Your task to perform on an android device: Open the calendar app, open the side menu, and click the "Day" option Image 0: 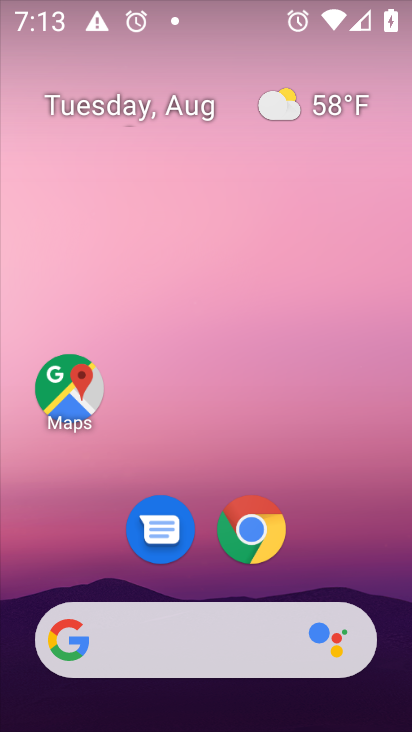
Step 0: drag from (203, 577) to (201, 1)
Your task to perform on an android device: Open the calendar app, open the side menu, and click the "Day" option Image 1: 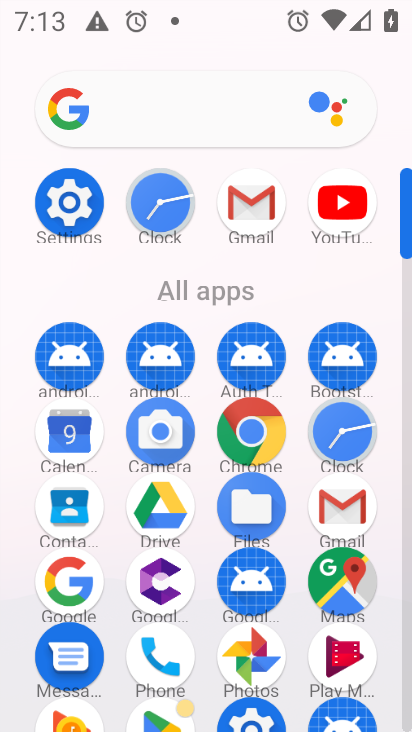
Step 1: click (61, 439)
Your task to perform on an android device: Open the calendar app, open the side menu, and click the "Day" option Image 2: 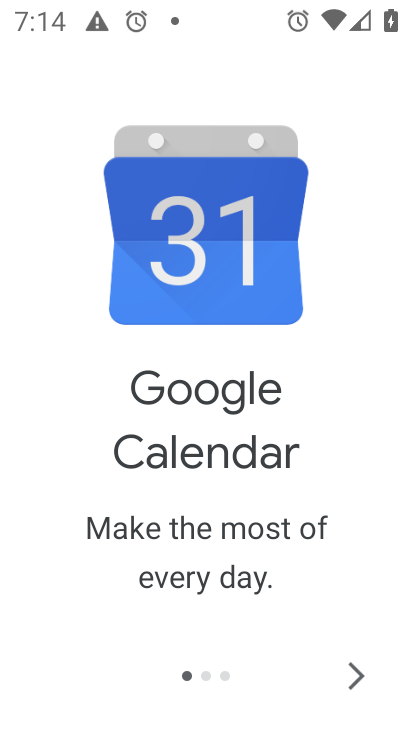
Step 2: click (358, 677)
Your task to perform on an android device: Open the calendar app, open the side menu, and click the "Day" option Image 3: 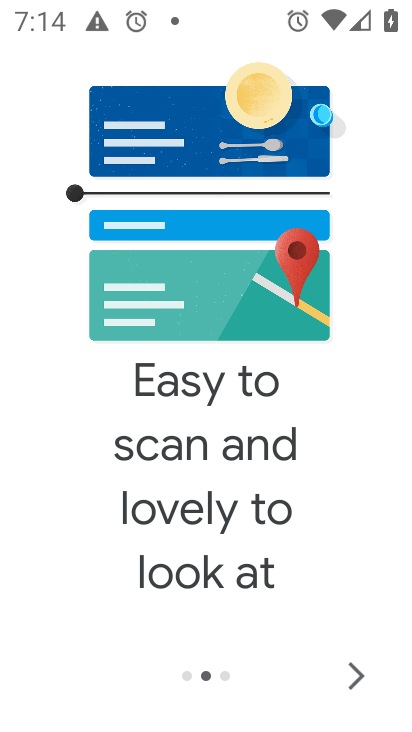
Step 3: click (361, 674)
Your task to perform on an android device: Open the calendar app, open the side menu, and click the "Day" option Image 4: 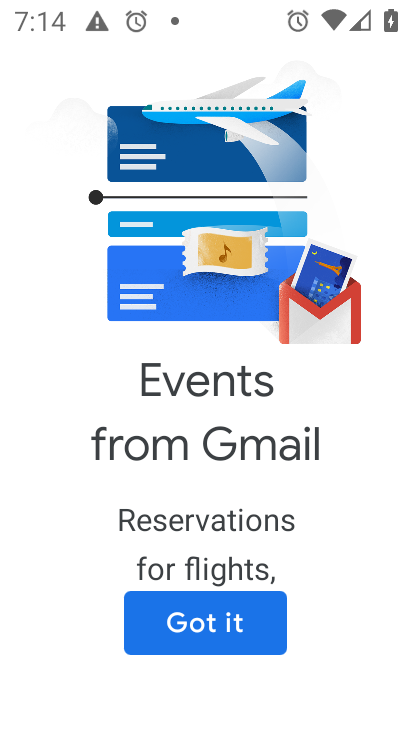
Step 4: click (220, 637)
Your task to perform on an android device: Open the calendar app, open the side menu, and click the "Day" option Image 5: 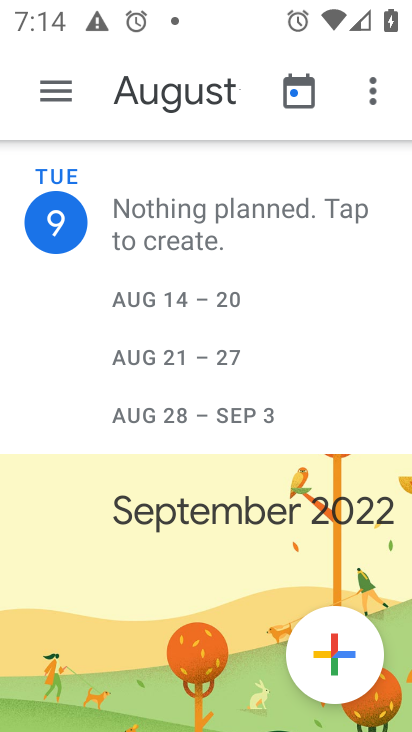
Step 5: click (56, 90)
Your task to perform on an android device: Open the calendar app, open the side menu, and click the "Day" option Image 6: 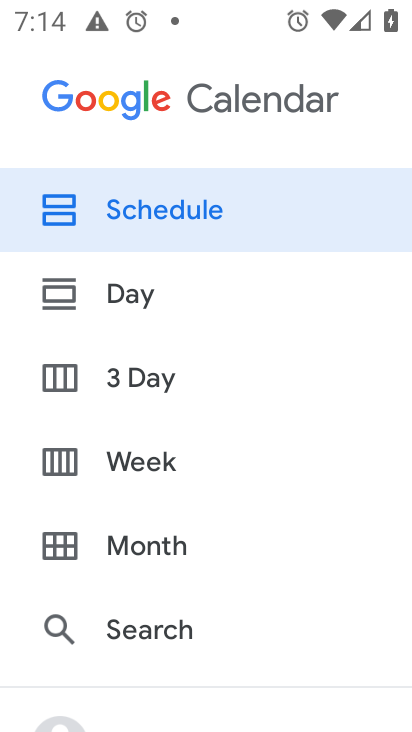
Step 6: click (126, 297)
Your task to perform on an android device: Open the calendar app, open the side menu, and click the "Day" option Image 7: 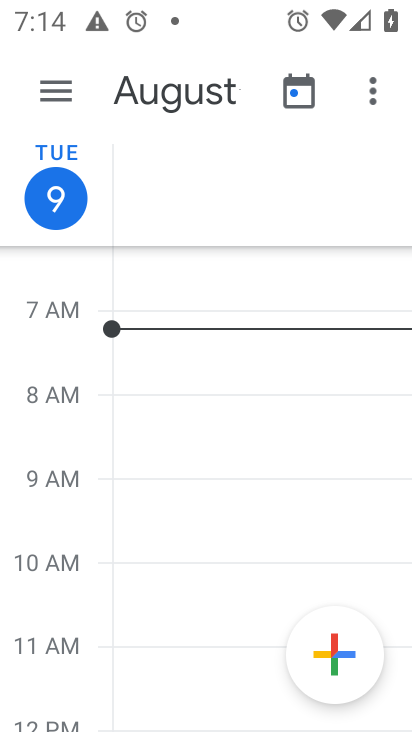
Step 7: task complete